Your task to perform on an android device: turn on bluetooth scan Image 0: 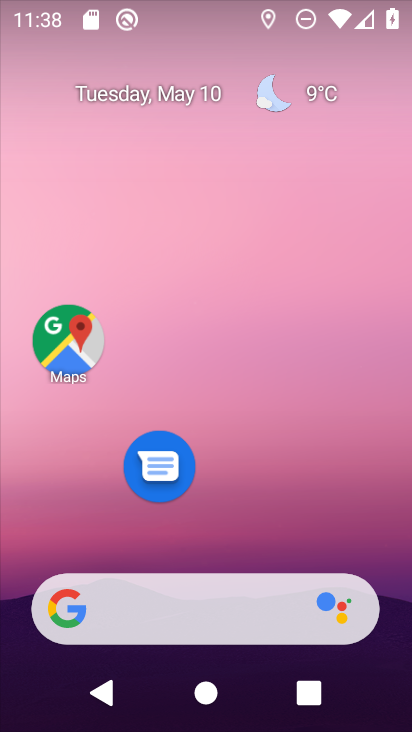
Step 0: drag from (266, 541) to (271, 52)
Your task to perform on an android device: turn on bluetooth scan Image 1: 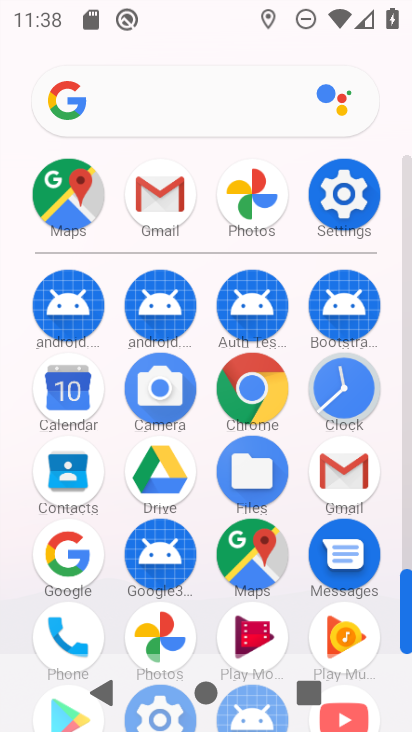
Step 1: click (343, 189)
Your task to perform on an android device: turn on bluetooth scan Image 2: 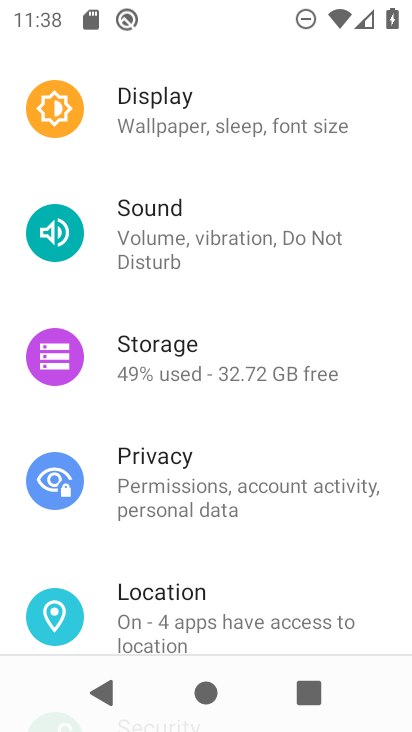
Step 2: click (223, 598)
Your task to perform on an android device: turn on bluetooth scan Image 3: 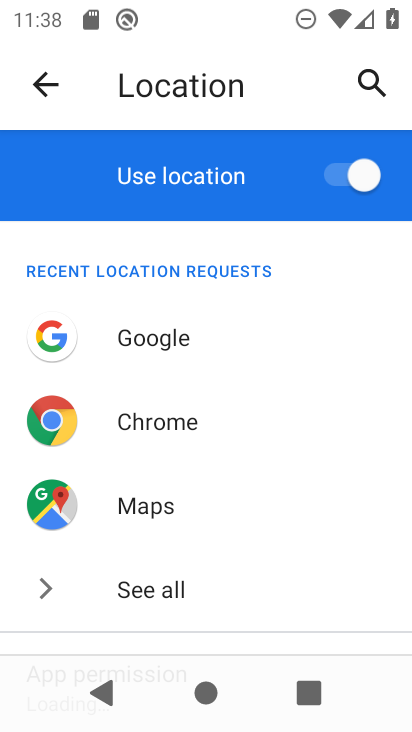
Step 3: drag from (229, 618) to (266, 343)
Your task to perform on an android device: turn on bluetooth scan Image 4: 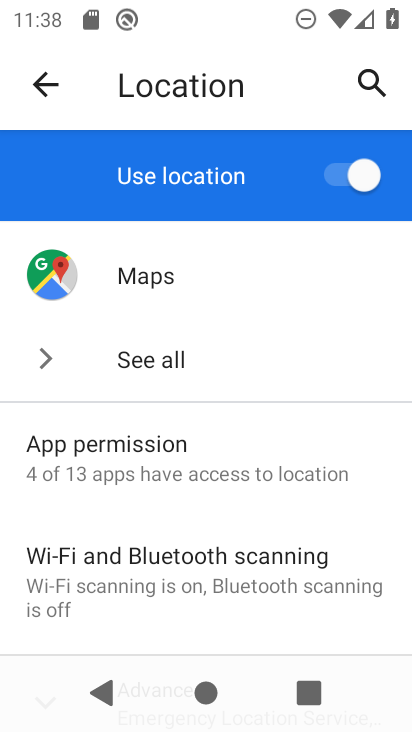
Step 4: click (257, 561)
Your task to perform on an android device: turn on bluetooth scan Image 5: 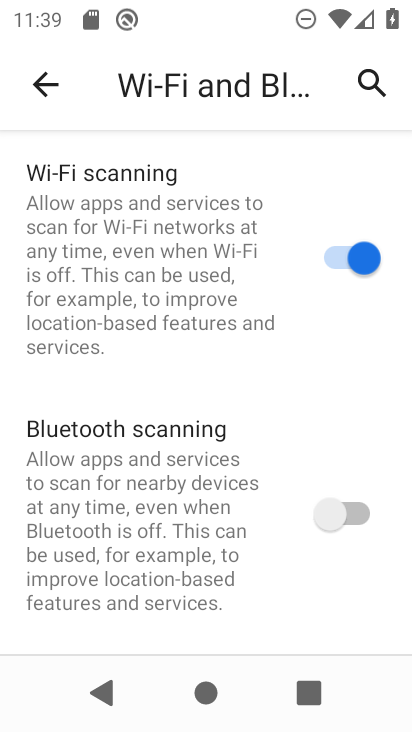
Step 5: click (321, 509)
Your task to perform on an android device: turn on bluetooth scan Image 6: 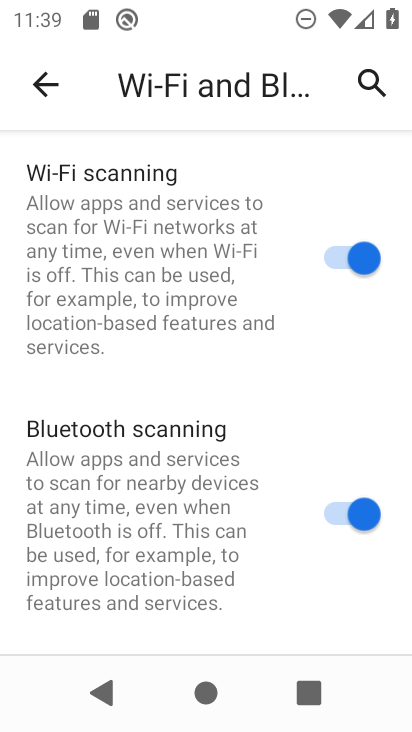
Step 6: task complete